Your task to perform on an android device: Go to privacy settings Image 0: 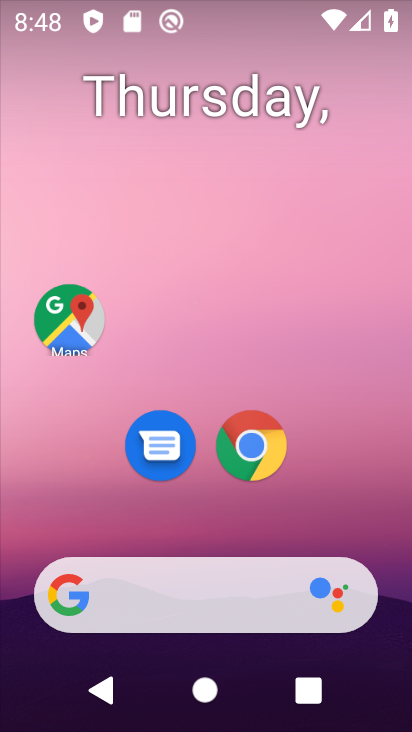
Step 0: drag from (213, 419) to (259, 3)
Your task to perform on an android device: Go to privacy settings Image 1: 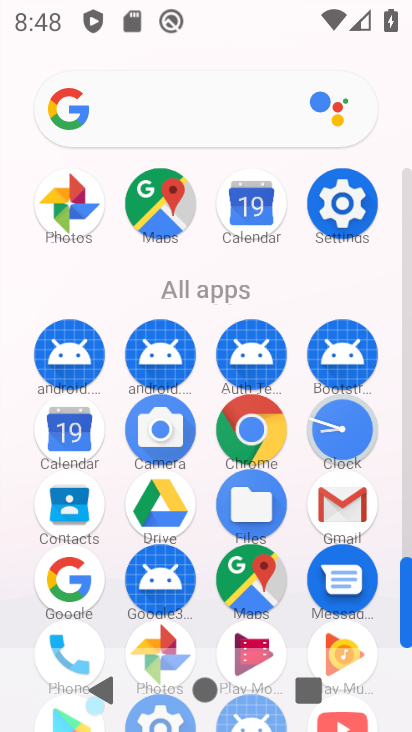
Step 1: click (350, 214)
Your task to perform on an android device: Go to privacy settings Image 2: 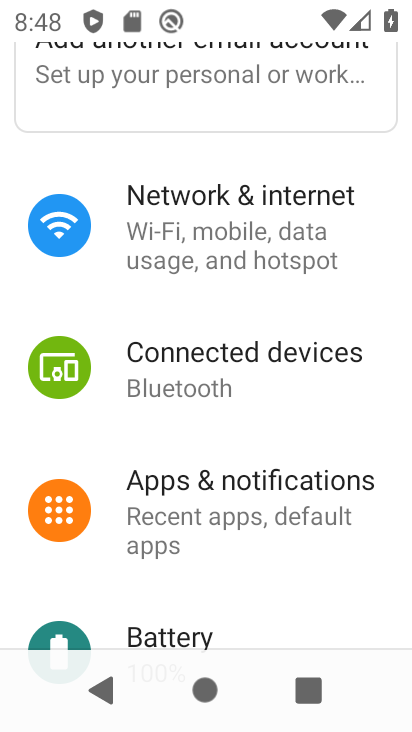
Step 2: drag from (247, 561) to (274, 333)
Your task to perform on an android device: Go to privacy settings Image 3: 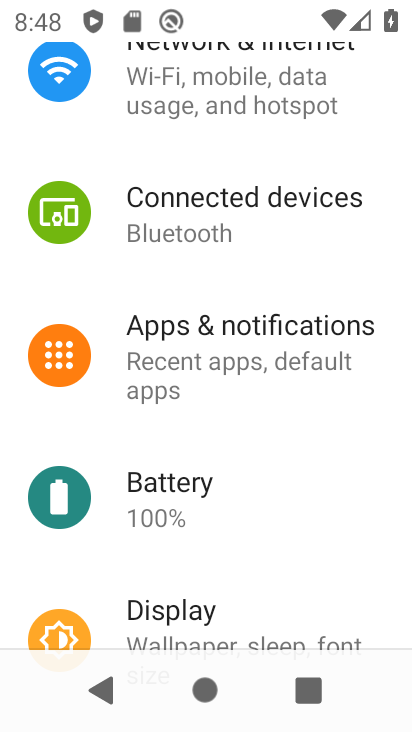
Step 3: drag from (228, 562) to (250, 310)
Your task to perform on an android device: Go to privacy settings Image 4: 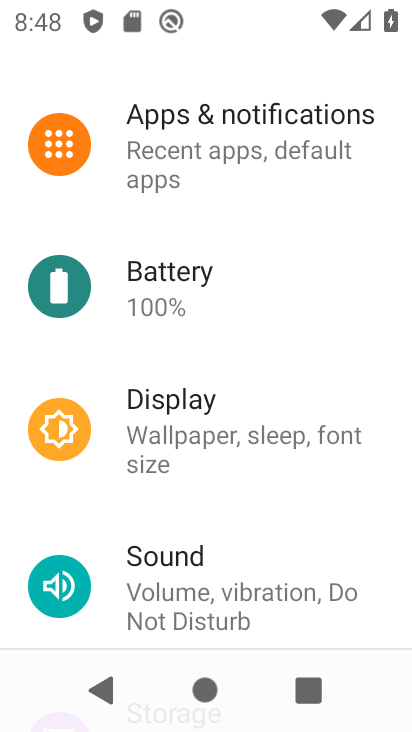
Step 4: drag from (249, 521) to (265, 211)
Your task to perform on an android device: Go to privacy settings Image 5: 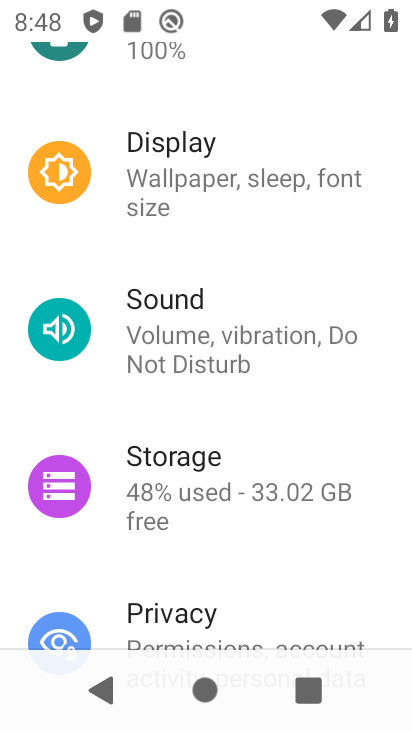
Step 5: click (194, 609)
Your task to perform on an android device: Go to privacy settings Image 6: 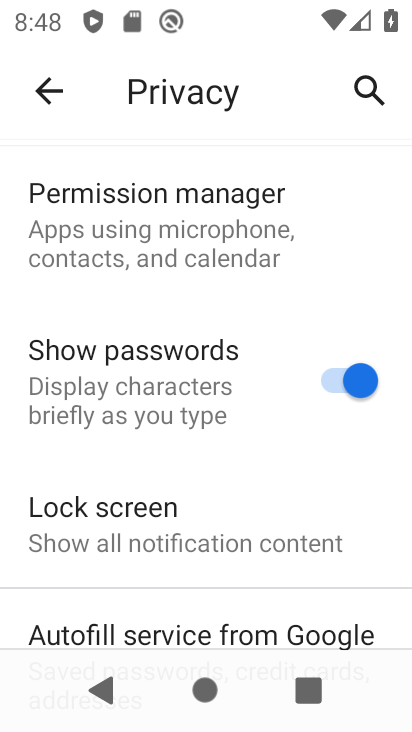
Step 6: task complete